Your task to perform on an android device: stop showing notifications on the lock screen Image 0: 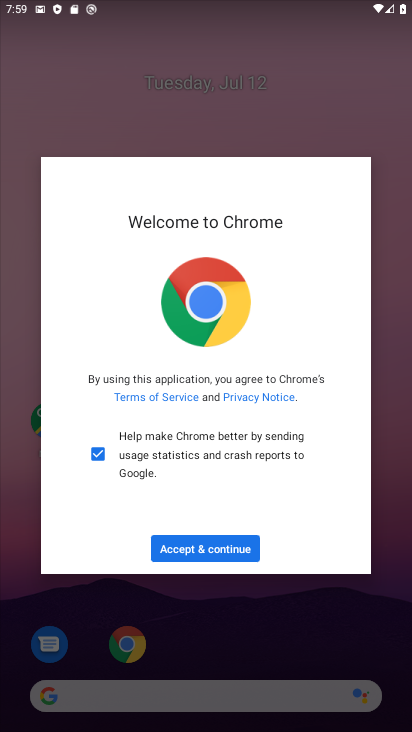
Step 0: press home button
Your task to perform on an android device: stop showing notifications on the lock screen Image 1: 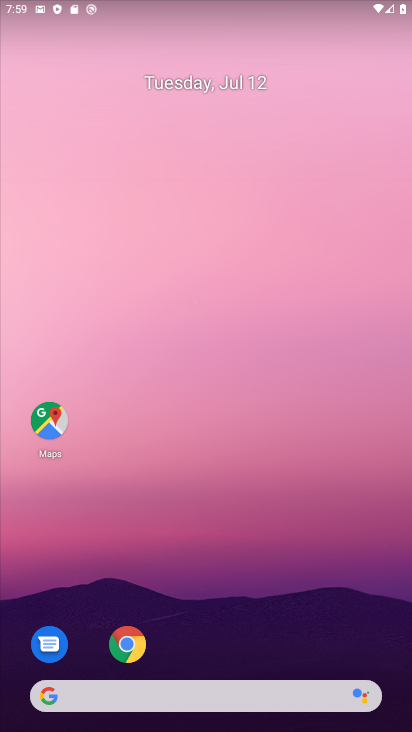
Step 1: drag from (196, 694) to (199, 292)
Your task to perform on an android device: stop showing notifications on the lock screen Image 2: 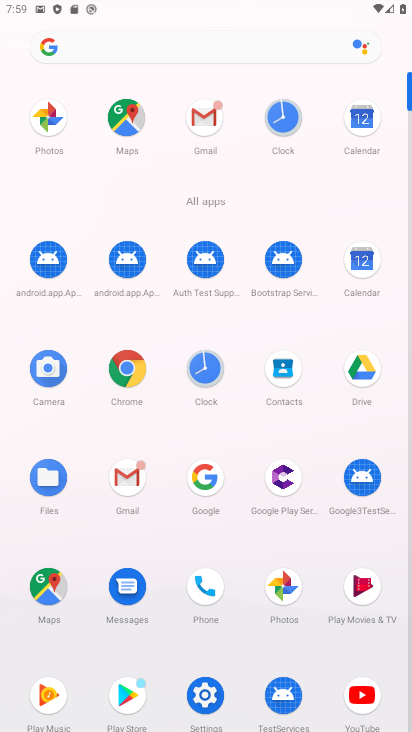
Step 2: click (205, 695)
Your task to perform on an android device: stop showing notifications on the lock screen Image 3: 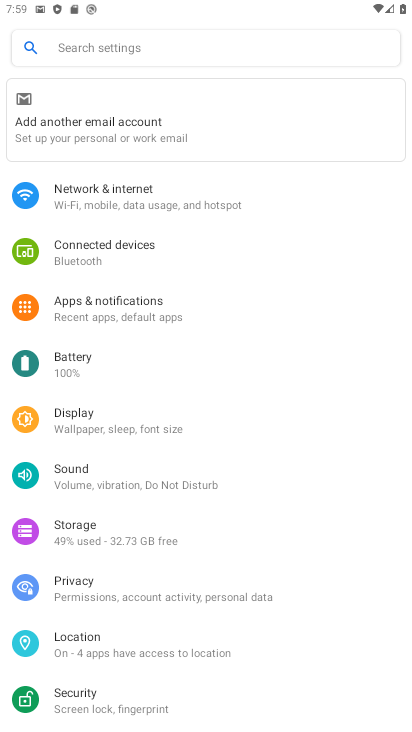
Step 3: click (82, 318)
Your task to perform on an android device: stop showing notifications on the lock screen Image 4: 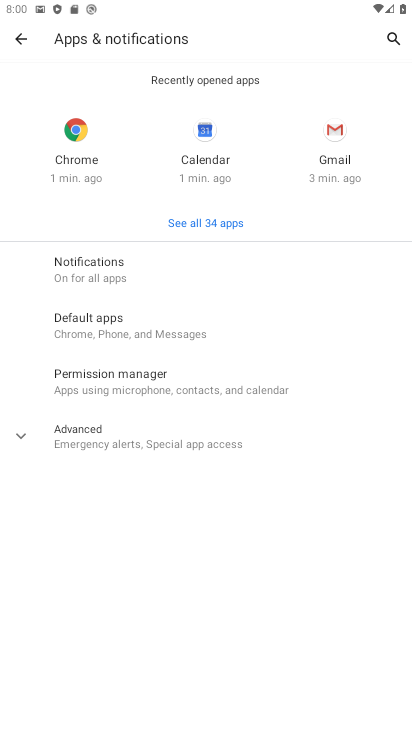
Step 4: click (86, 270)
Your task to perform on an android device: stop showing notifications on the lock screen Image 5: 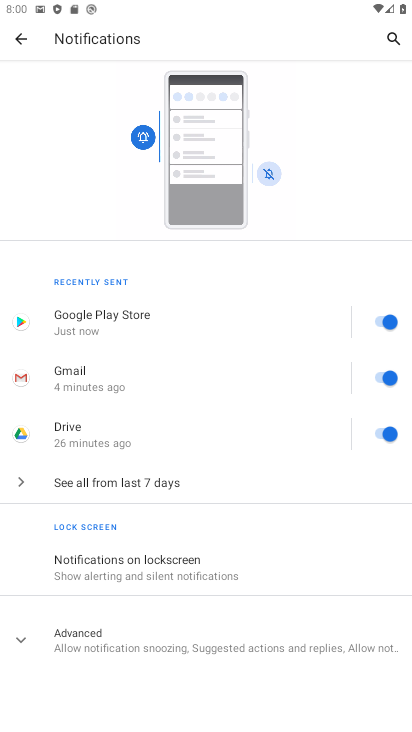
Step 5: click (141, 568)
Your task to perform on an android device: stop showing notifications on the lock screen Image 6: 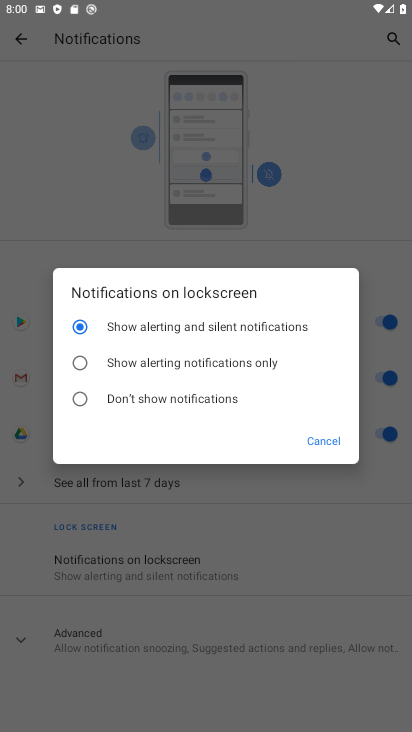
Step 6: click (82, 399)
Your task to perform on an android device: stop showing notifications on the lock screen Image 7: 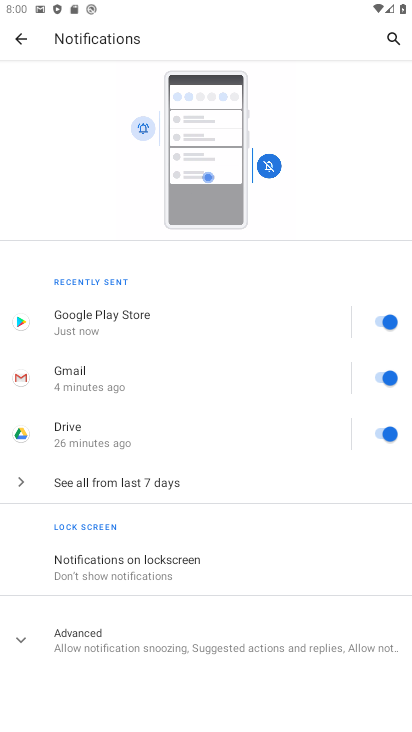
Step 7: task complete